Your task to perform on an android device: turn off notifications settings in the gmail app Image 0: 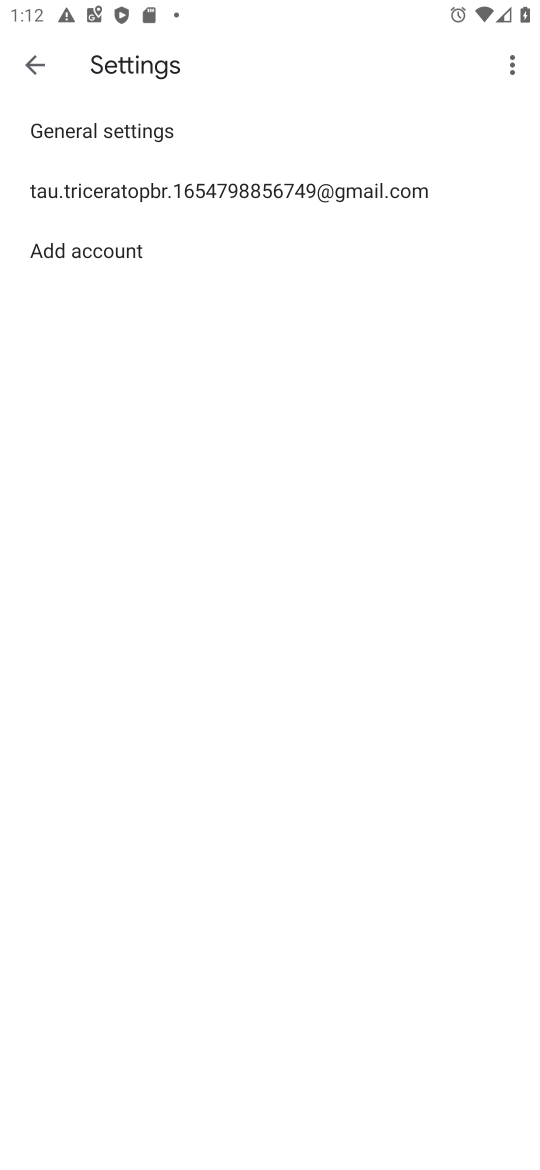
Step 0: press home button
Your task to perform on an android device: turn off notifications settings in the gmail app Image 1: 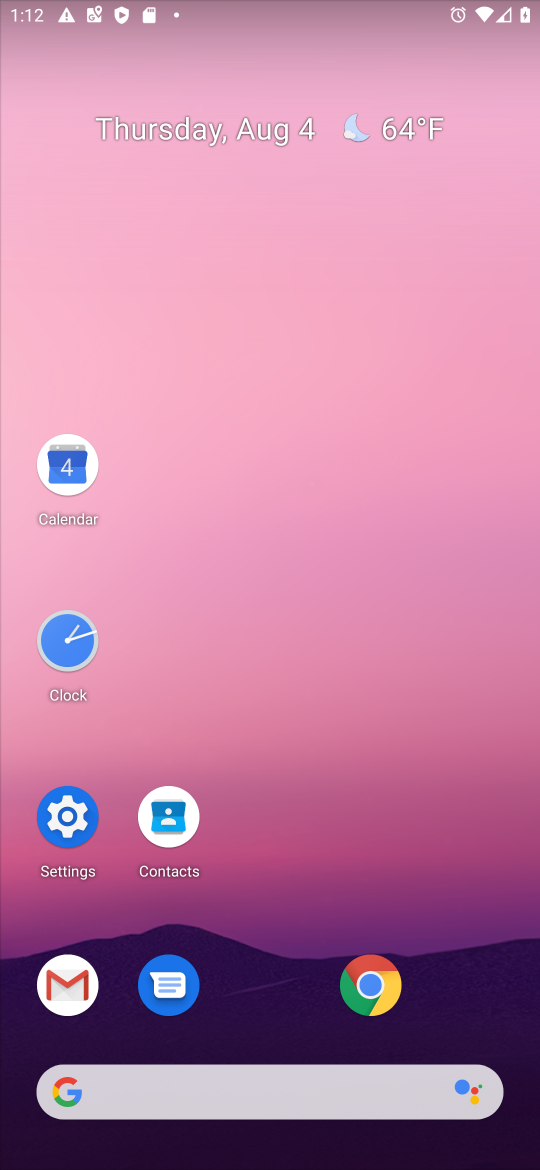
Step 1: click (64, 971)
Your task to perform on an android device: turn off notifications settings in the gmail app Image 2: 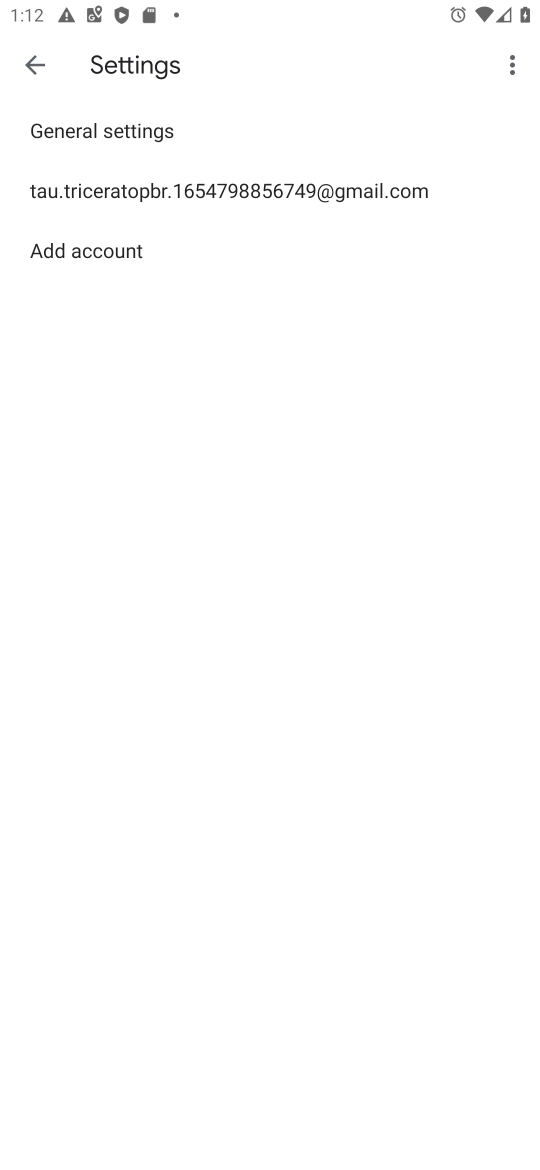
Step 2: click (37, 57)
Your task to perform on an android device: turn off notifications settings in the gmail app Image 3: 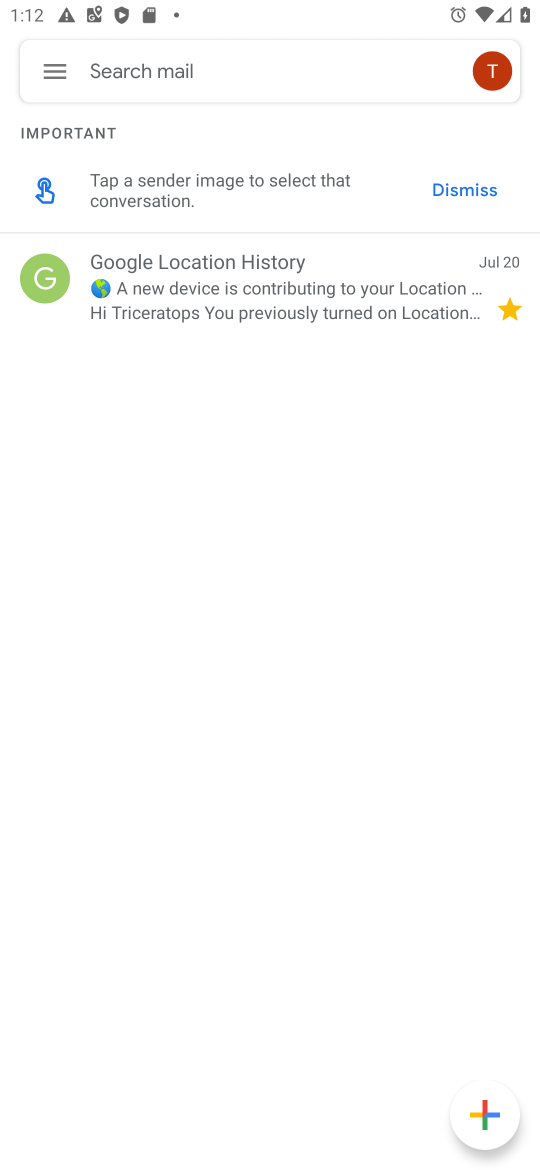
Step 3: click (37, 57)
Your task to perform on an android device: turn off notifications settings in the gmail app Image 4: 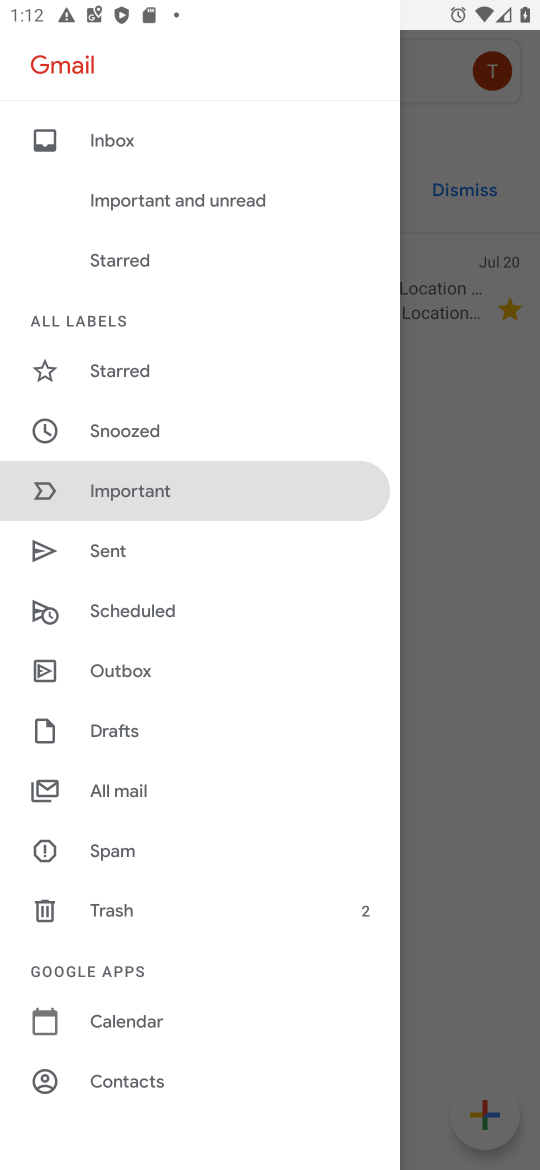
Step 4: drag from (201, 1036) to (252, 378)
Your task to perform on an android device: turn off notifications settings in the gmail app Image 5: 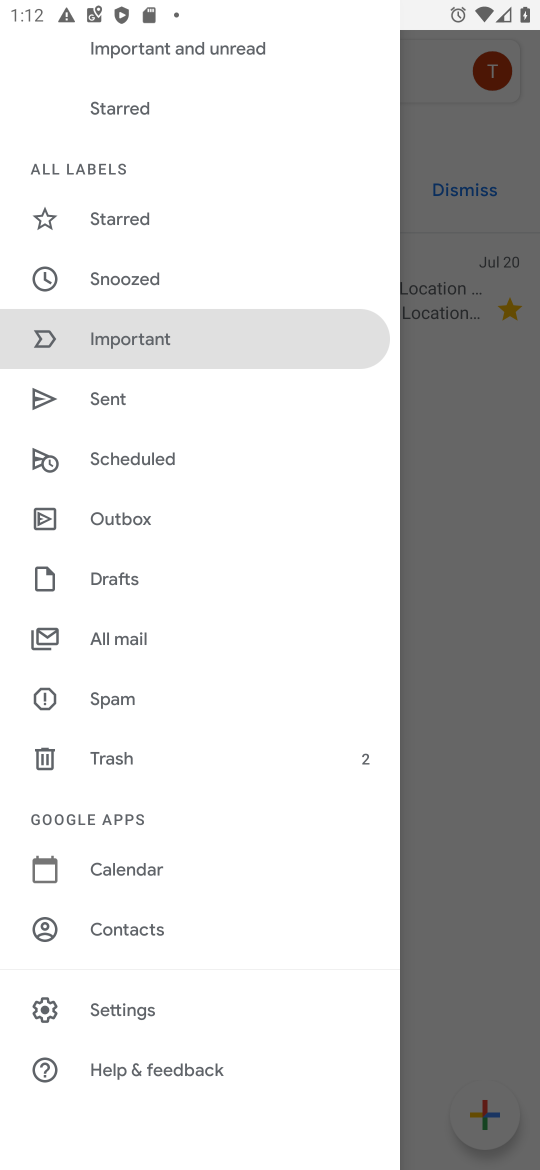
Step 5: click (117, 1002)
Your task to perform on an android device: turn off notifications settings in the gmail app Image 6: 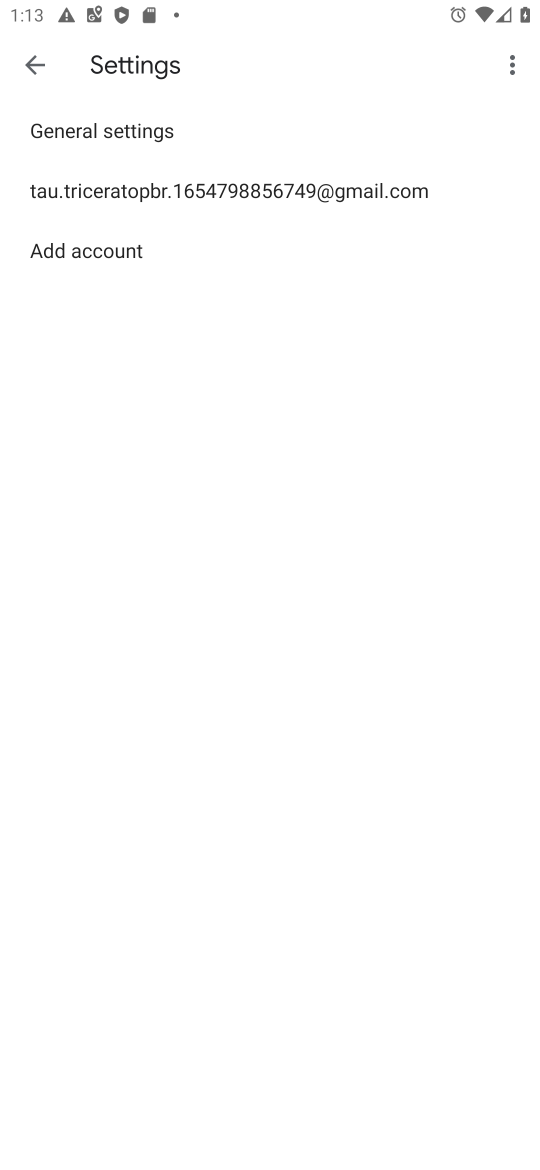
Step 6: click (109, 127)
Your task to perform on an android device: turn off notifications settings in the gmail app Image 7: 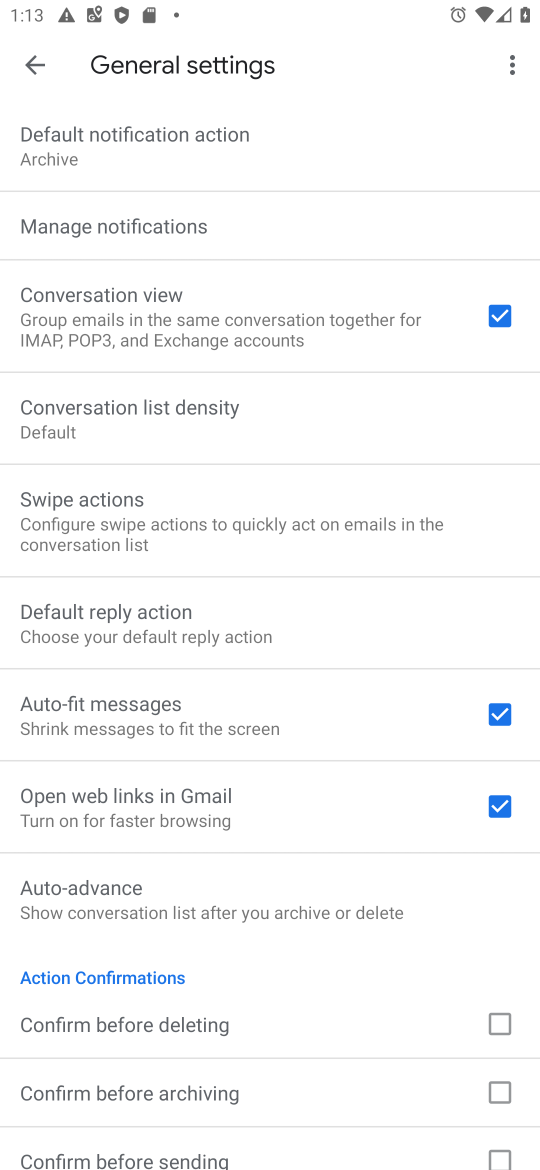
Step 7: click (145, 219)
Your task to perform on an android device: turn off notifications settings in the gmail app Image 8: 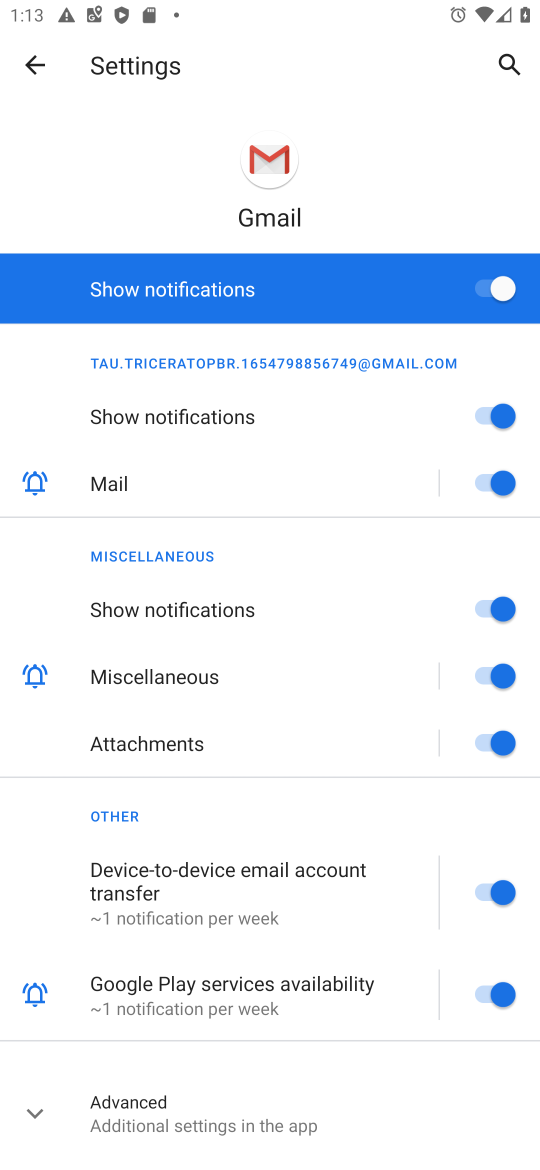
Step 8: click (483, 302)
Your task to perform on an android device: turn off notifications settings in the gmail app Image 9: 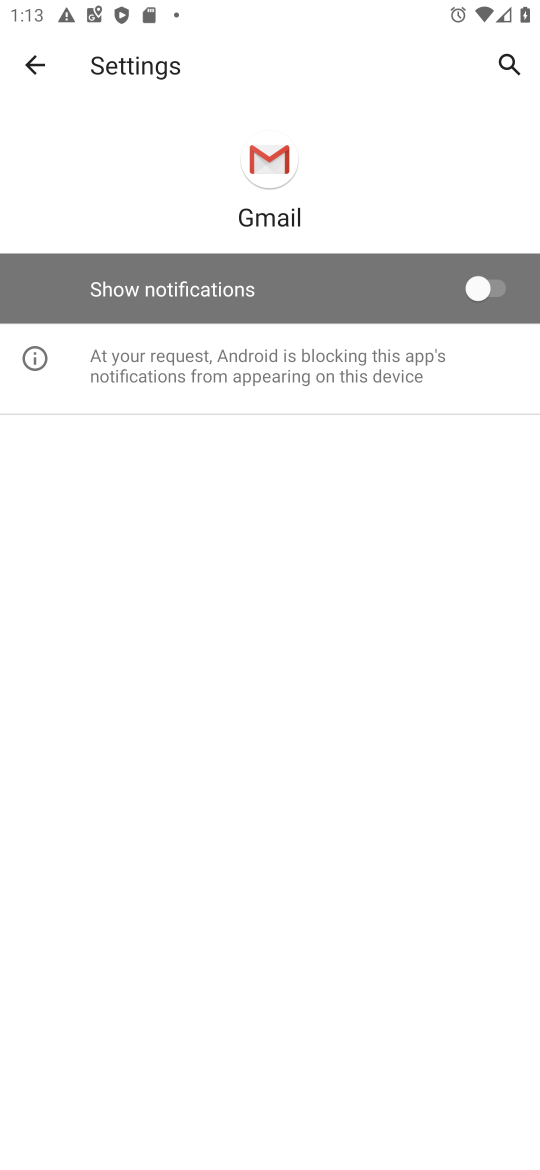
Step 9: task complete